Your task to perform on an android device: Go to Wikipedia Image 0: 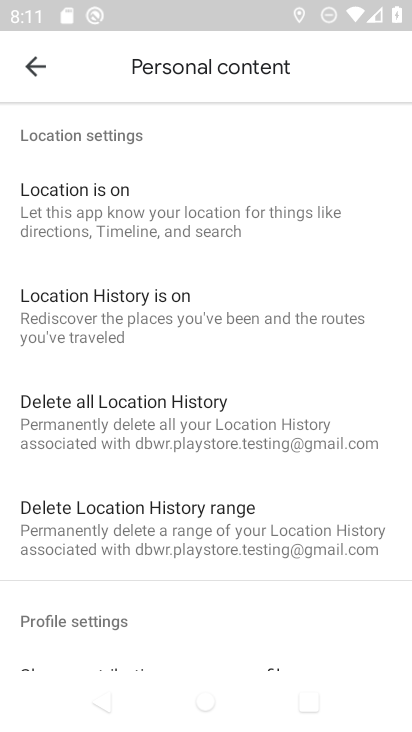
Step 0: press home button
Your task to perform on an android device: Go to Wikipedia Image 1: 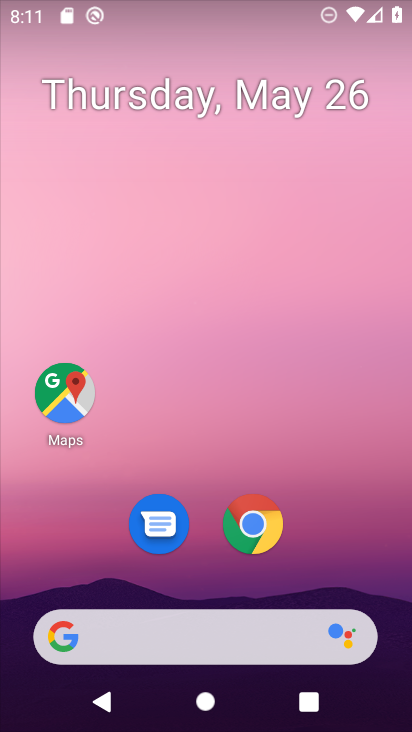
Step 1: click (249, 524)
Your task to perform on an android device: Go to Wikipedia Image 2: 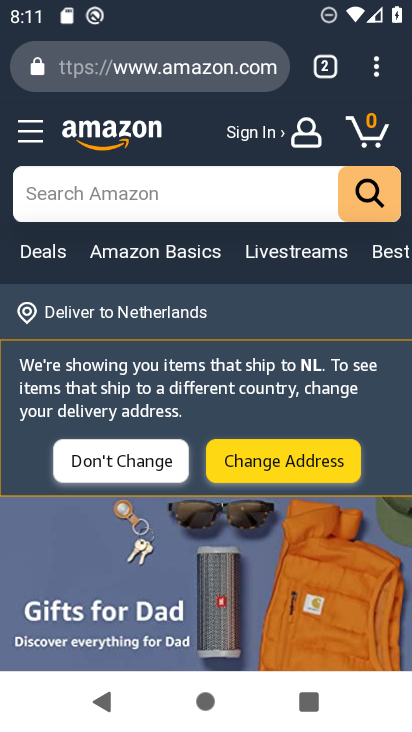
Step 2: click (377, 71)
Your task to perform on an android device: Go to Wikipedia Image 3: 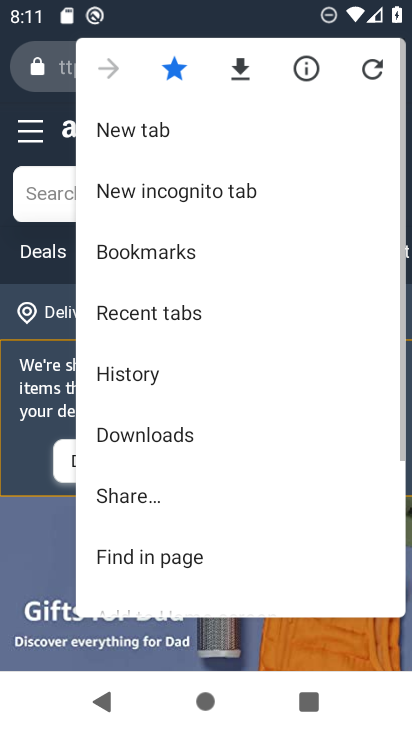
Step 3: click (282, 129)
Your task to perform on an android device: Go to Wikipedia Image 4: 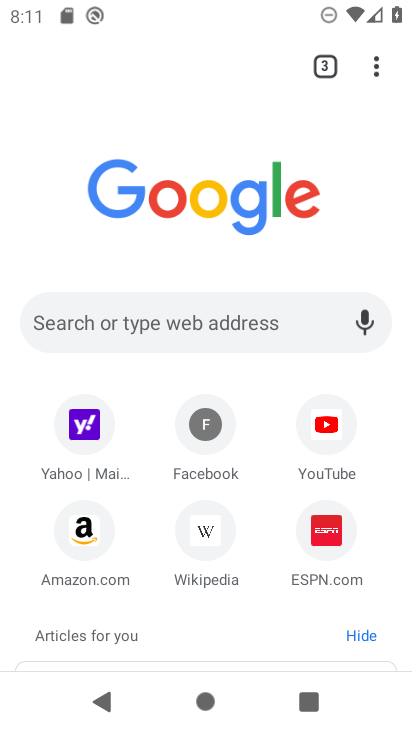
Step 4: click (211, 528)
Your task to perform on an android device: Go to Wikipedia Image 5: 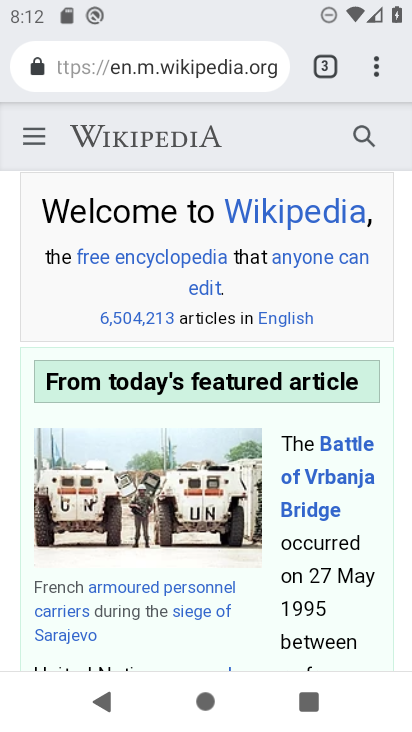
Step 5: task complete